Your task to perform on an android device: Open Maps and search for coffee Image 0: 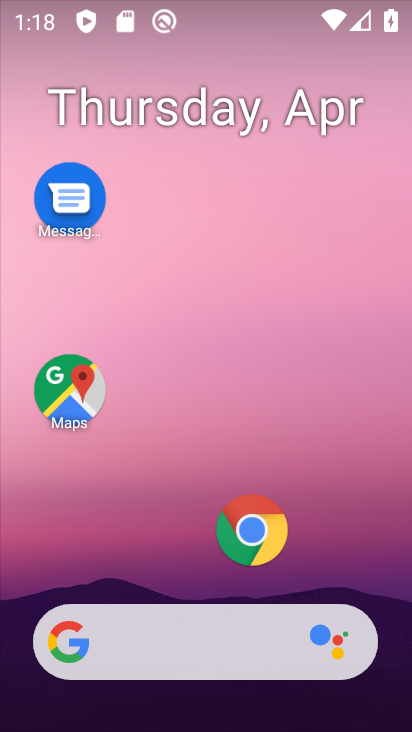
Step 0: click (91, 385)
Your task to perform on an android device: Open Maps and search for coffee Image 1: 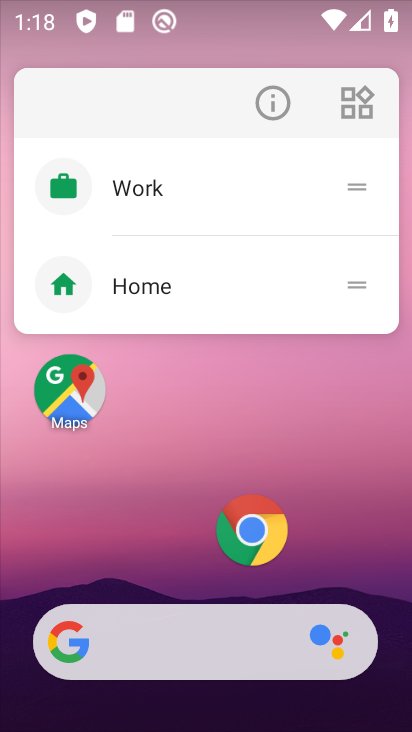
Step 1: click (84, 380)
Your task to perform on an android device: Open Maps and search for coffee Image 2: 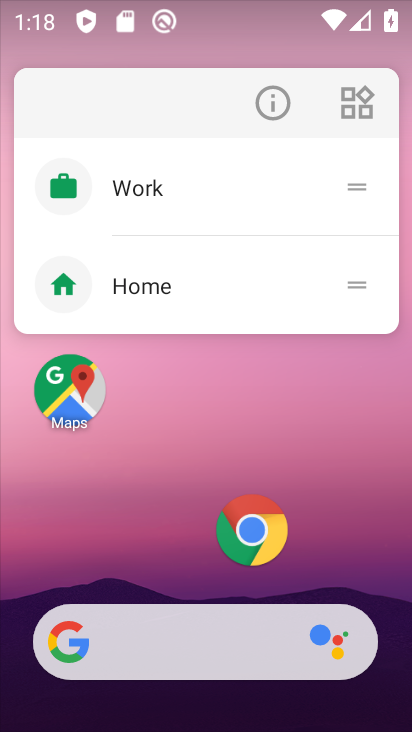
Step 2: click (60, 397)
Your task to perform on an android device: Open Maps and search for coffee Image 3: 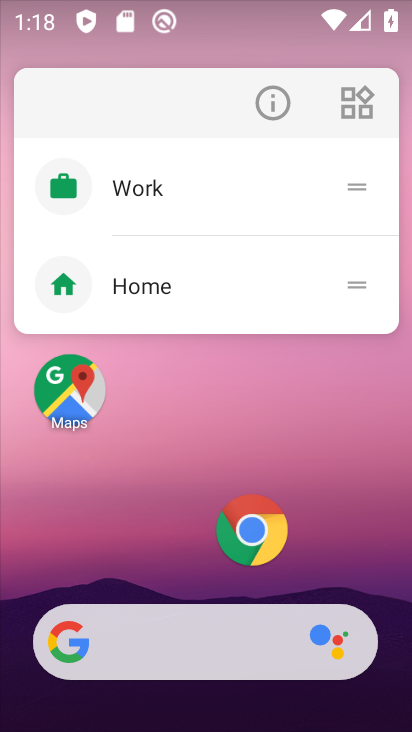
Step 3: click (48, 403)
Your task to perform on an android device: Open Maps and search for coffee Image 4: 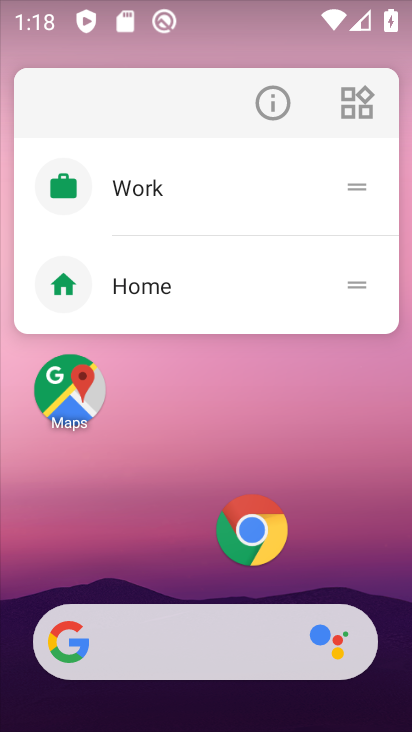
Step 4: click (64, 415)
Your task to perform on an android device: Open Maps and search for coffee Image 5: 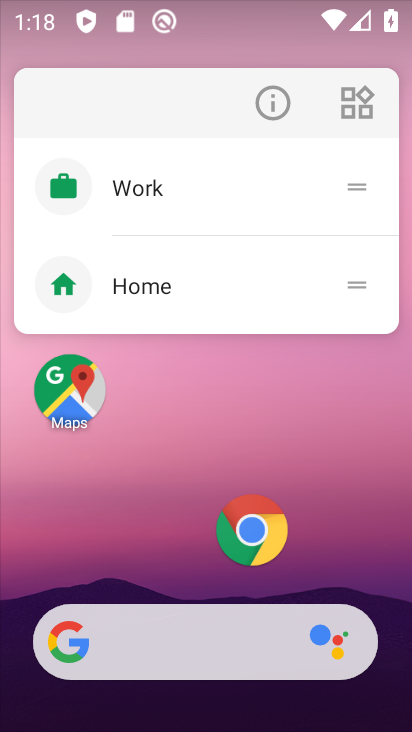
Step 5: click (64, 415)
Your task to perform on an android device: Open Maps and search for coffee Image 6: 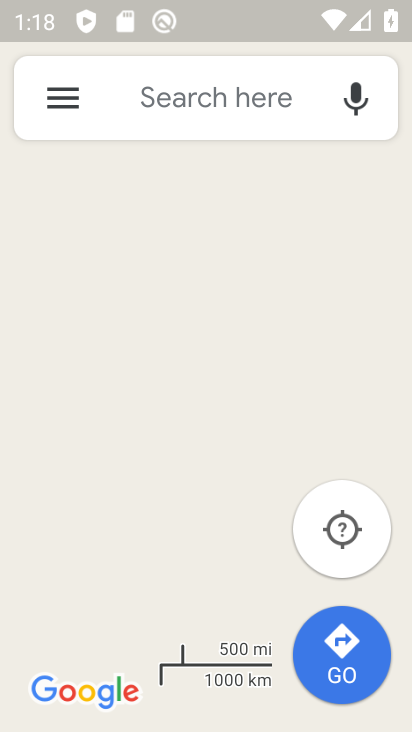
Step 6: click (195, 109)
Your task to perform on an android device: Open Maps and search for coffee Image 7: 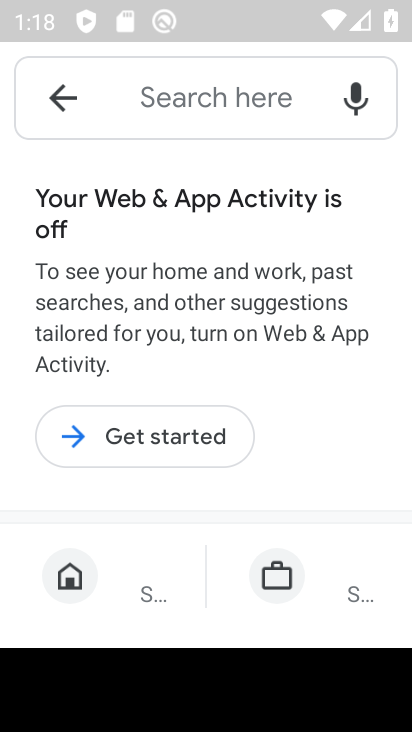
Step 7: click (168, 404)
Your task to perform on an android device: Open Maps and search for coffee Image 8: 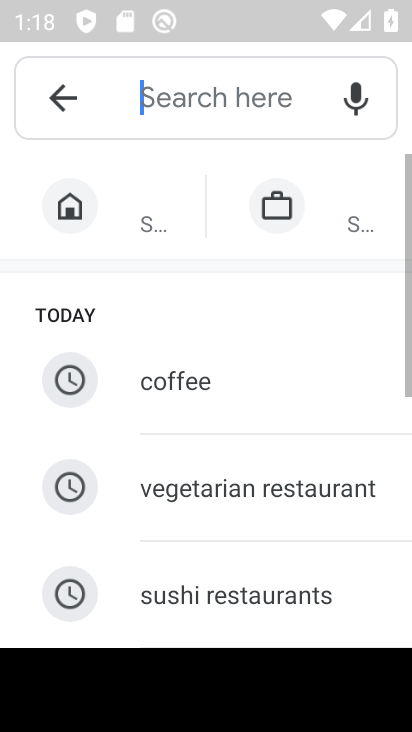
Step 8: click (167, 401)
Your task to perform on an android device: Open Maps and search for coffee Image 9: 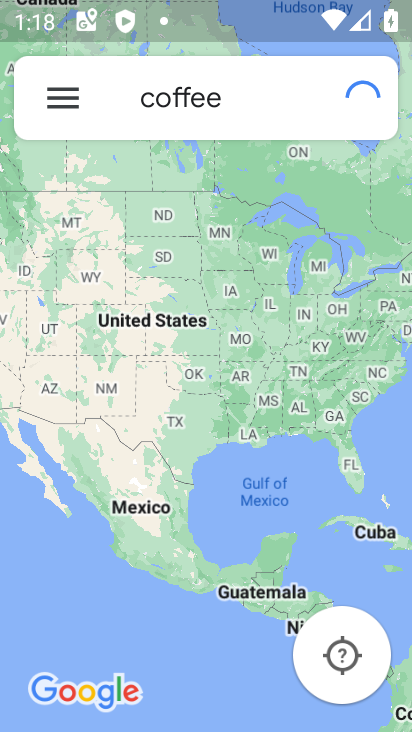
Step 9: task complete